Your task to perform on an android device: turn off location Image 0: 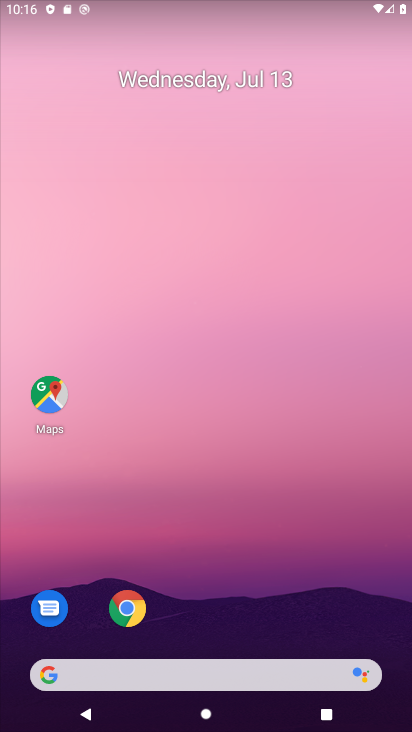
Step 0: press home button
Your task to perform on an android device: turn off location Image 1: 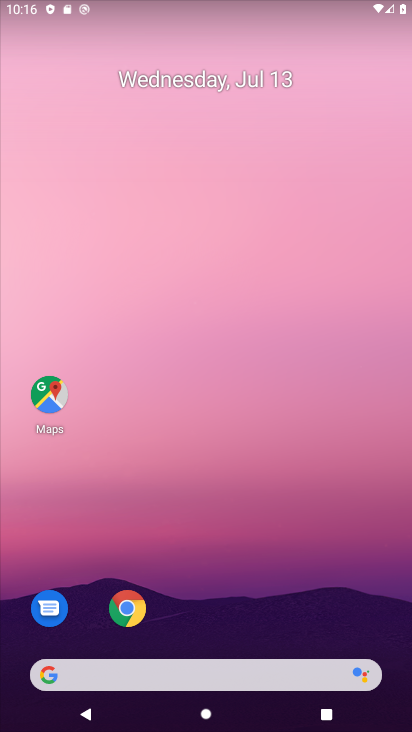
Step 1: drag from (315, 635) to (352, 58)
Your task to perform on an android device: turn off location Image 2: 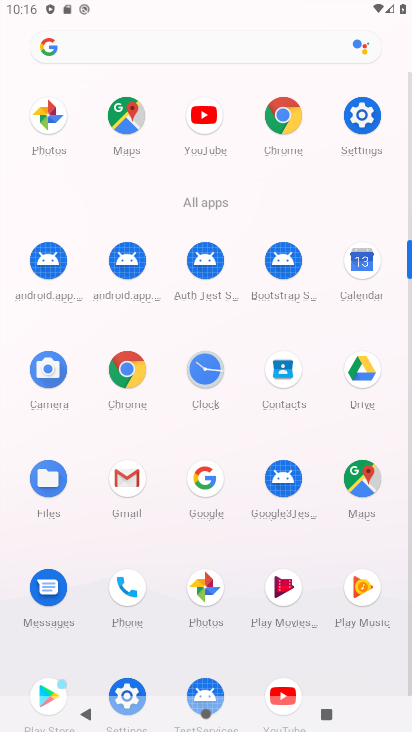
Step 2: click (368, 117)
Your task to perform on an android device: turn off location Image 3: 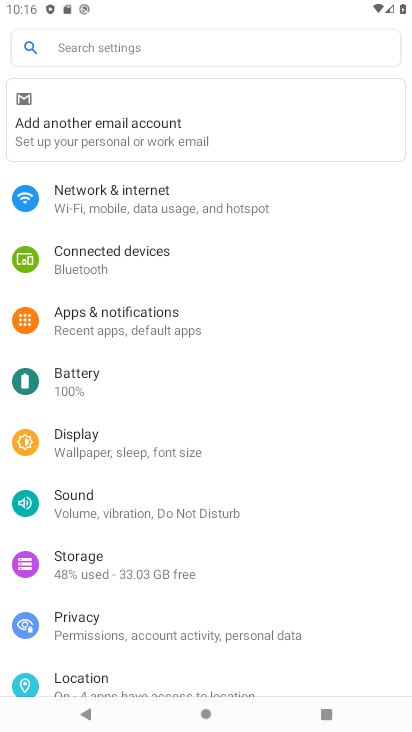
Step 3: click (87, 675)
Your task to perform on an android device: turn off location Image 4: 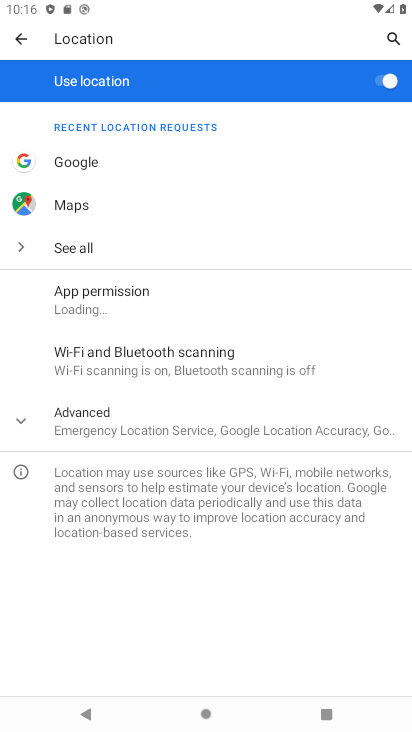
Step 4: click (380, 82)
Your task to perform on an android device: turn off location Image 5: 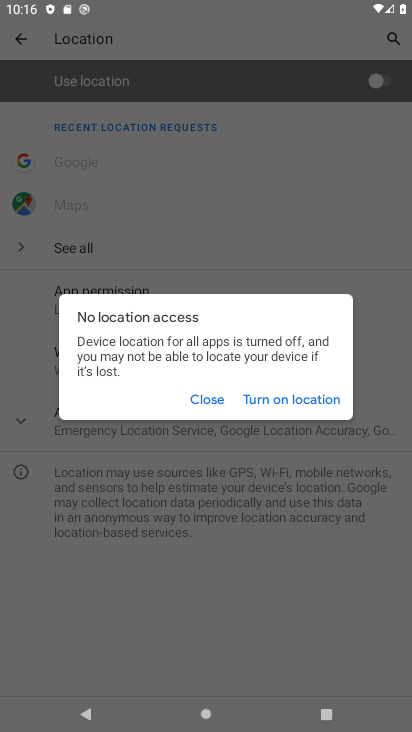
Step 5: task complete